Your task to perform on an android device: turn on wifi Image 0: 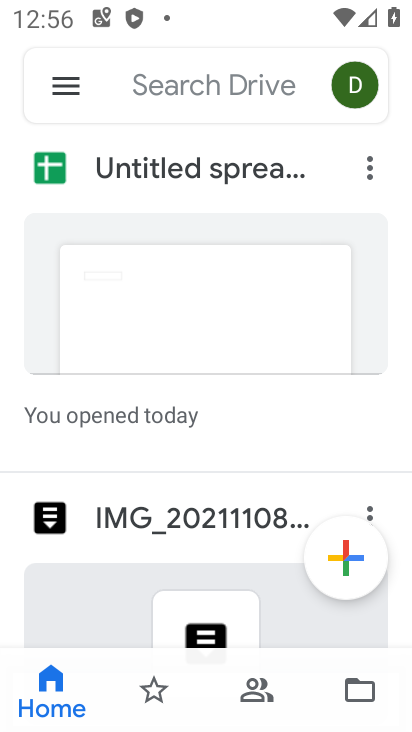
Step 0: press home button
Your task to perform on an android device: turn on wifi Image 1: 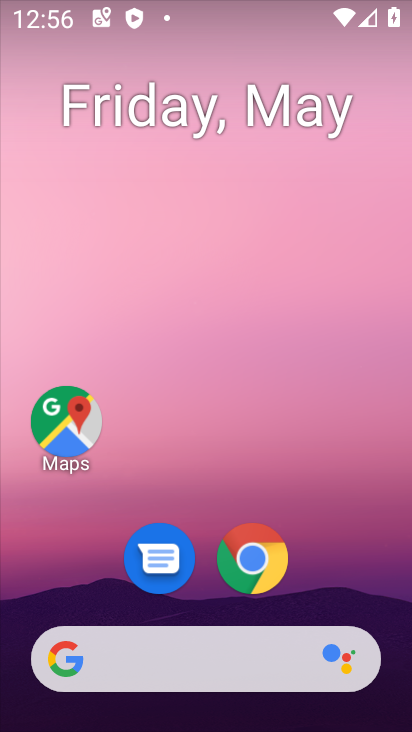
Step 1: drag from (337, 549) to (287, 88)
Your task to perform on an android device: turn on wifi Image 2: 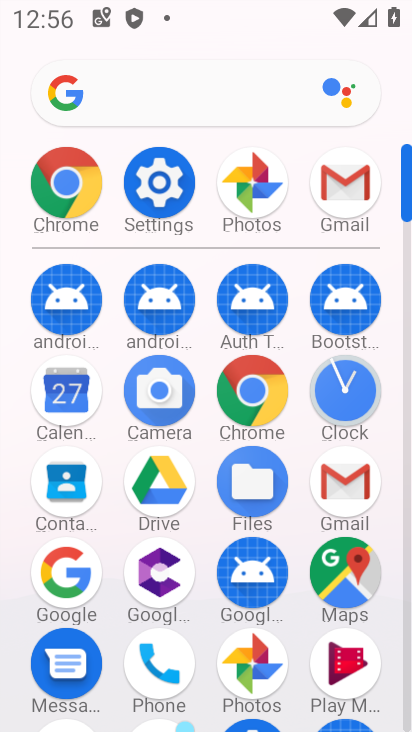
Step 2: click (177, 183)
Your task to perform on an android device: turn on wifi Image 3: 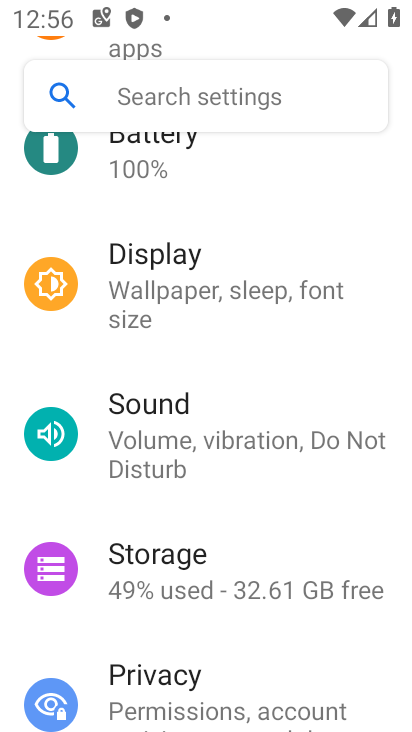
Step 3: drag from (177, 183) to (211, 692)
Your task to perform on an android device: turn on wifi Image 4: 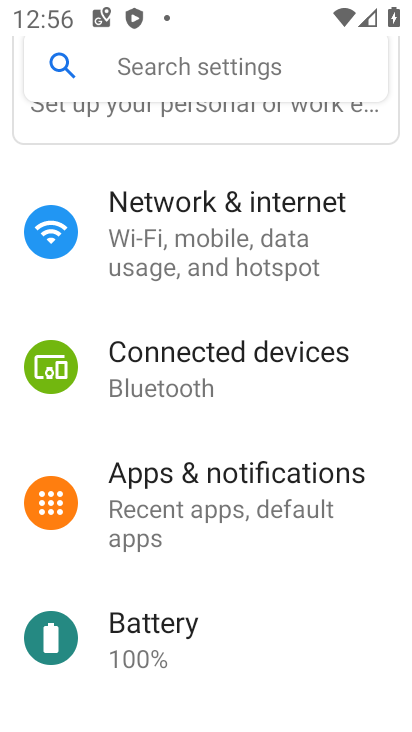
Step 4: click (223, 261)
Your task to perform on an android device: turn on wifi Image 5: 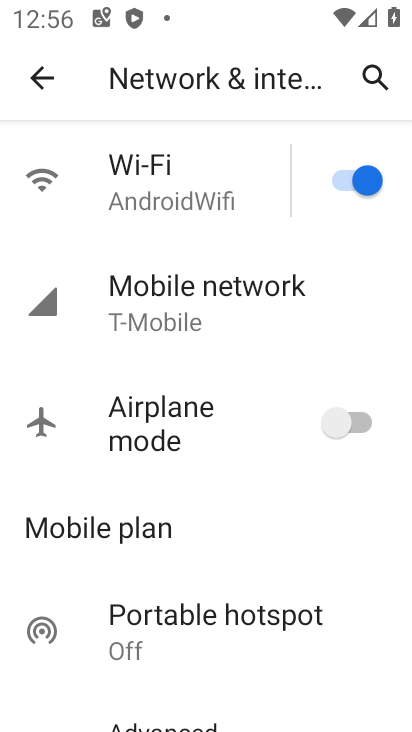
Step 5: task complete